Your task to perform on an android device: delete browsing data in the chrome app Image 0: 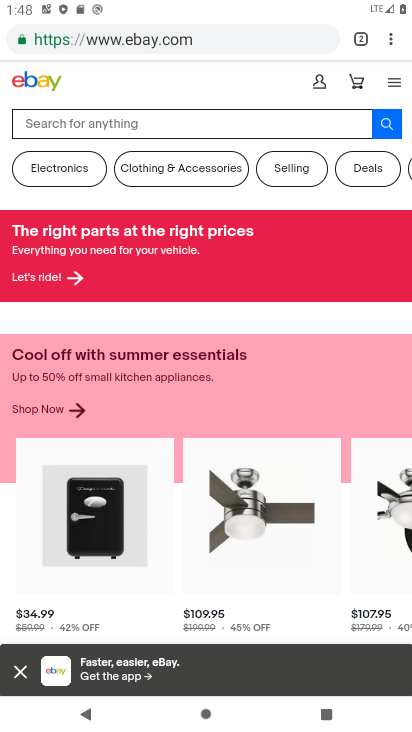
Step 0: press home button
Your task to perform on an android device: delete browsing data in the chrome app Image 1: 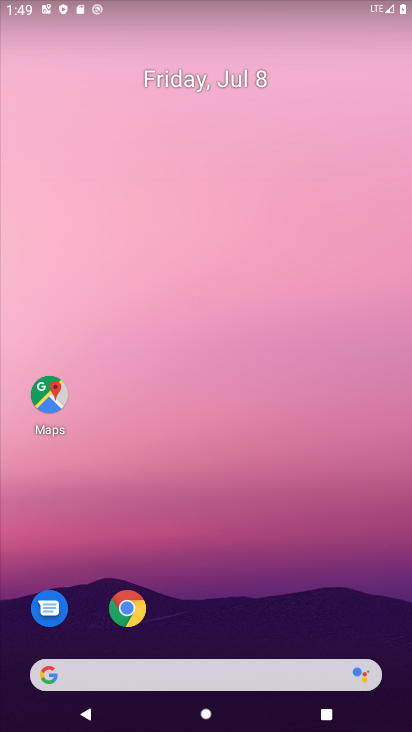
Step 1: click (127, 607)
Your task to perform on an android device: delete browsing data in the chrome app Image 2: 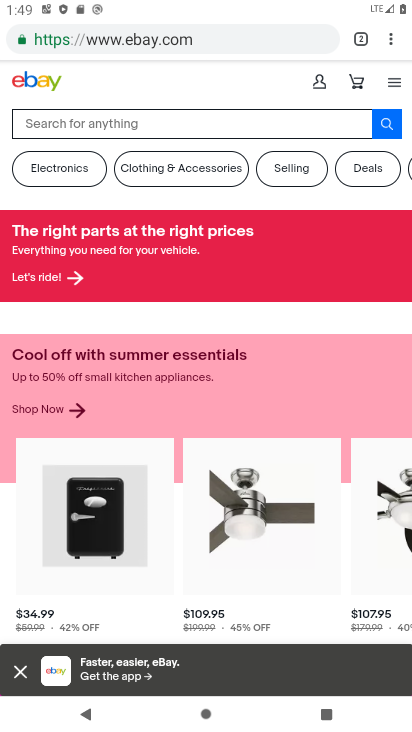
Step 2: click (390, 42)
Your task to perform on an android device: delete browsing data in the chrome app Image 3: 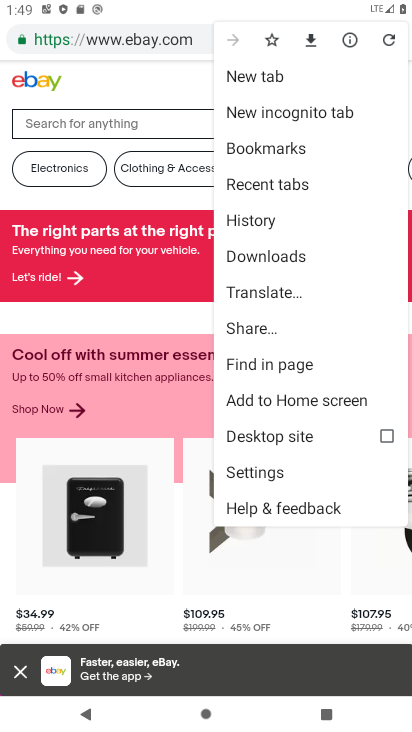
Step 3: click (255, 219)
Your task to perform on an android device: delete browsing data in the chrome app Image 4: 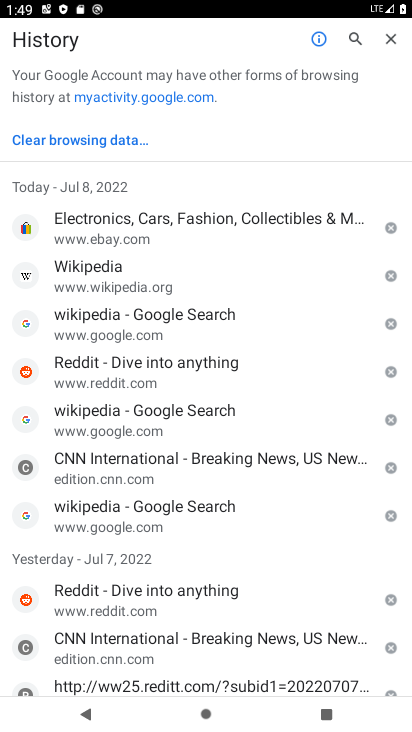
Step 4: click (60, 144)
Your task to perform on an android device: delete browsing data in the chrome app Image 5: 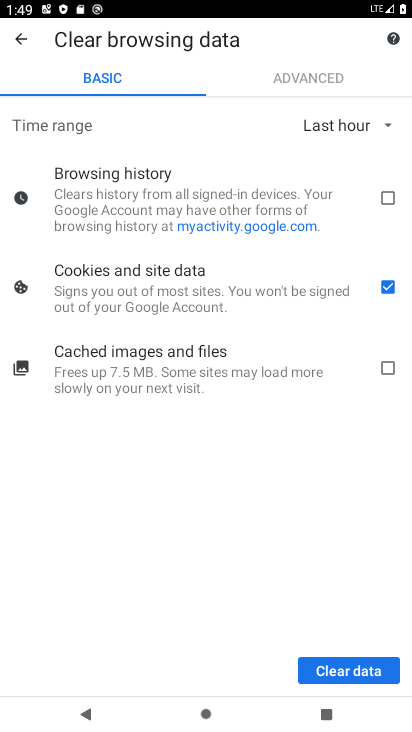
Step 5: click (378, 196)
Your task to perform on an android device: delete browsing data in the chrome app Image 6: 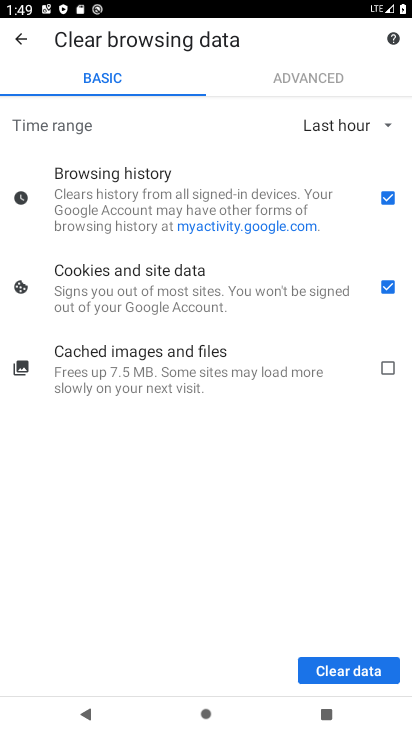
Step 6: click (386, 286)
Your task to perform on an android device: delete browsing data in the chrome app Image 7: 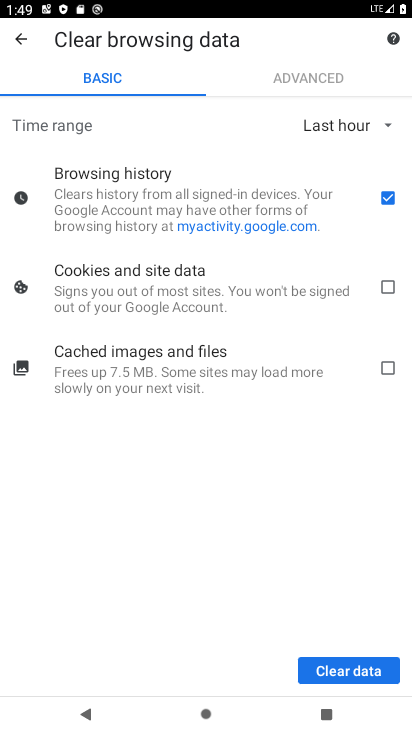
Step 7: click (349, 673)
Your task to perform on an android device: delete browsing data in the chrome app Image 8: 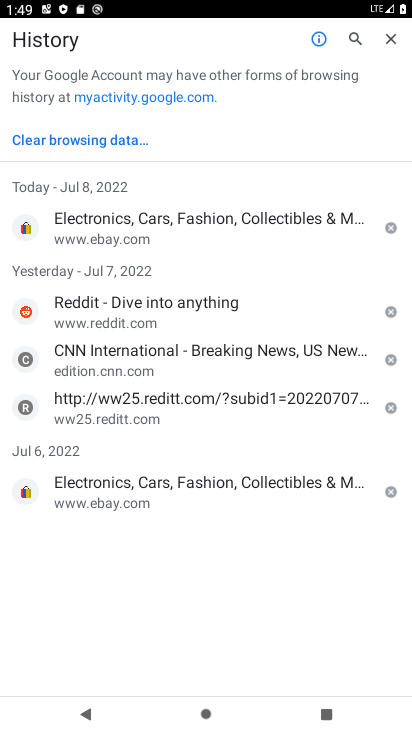
Step 8: task complete